Your task to perform on an android device: manage bookmarks in the chrome app Image 0: 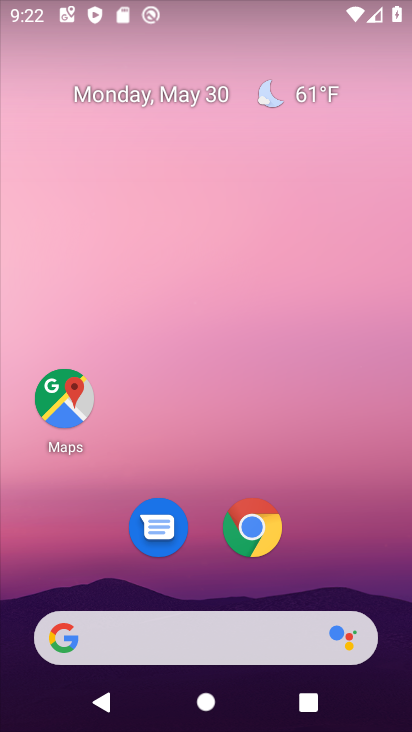
Step 0: click (248, 527)
Your task to perform on an android device: manage bookmarks in the chrome app Image 1: 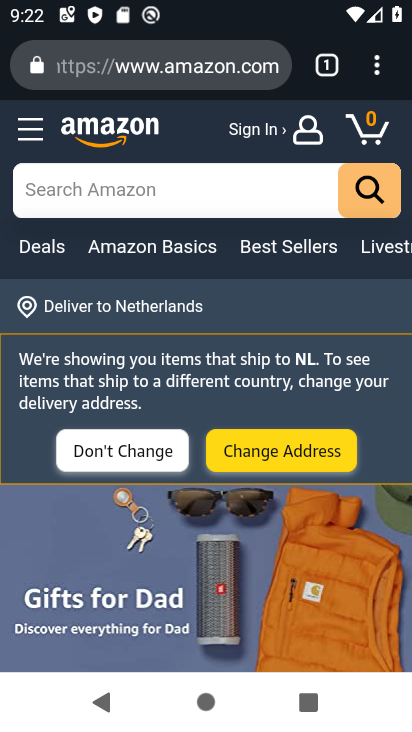
Step 1: click (367, 58)
Your task to perform on an android device: manage bookmarks in the chrome app Image 2: 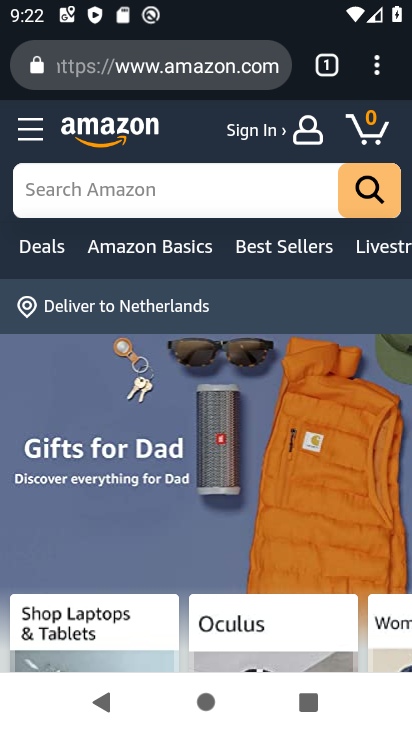
Step 2: click (392, 75)
Your task to perform on an android device: manage bookmarks in the chrome app Image 3: 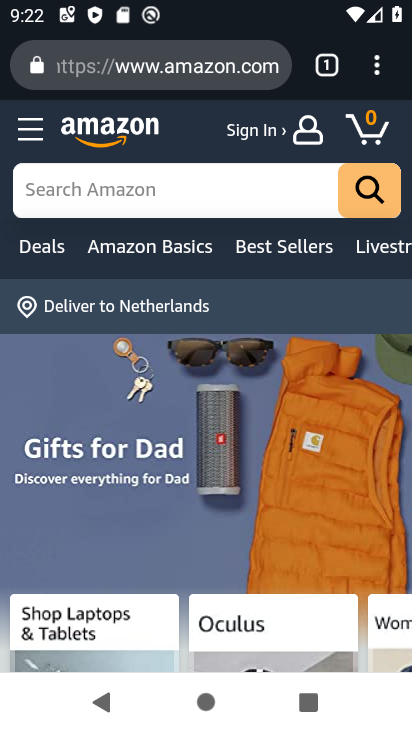
Step 3: click (383, 61)
Your task to perform on an android device: manage bookmarks in the chrome app Image 4: 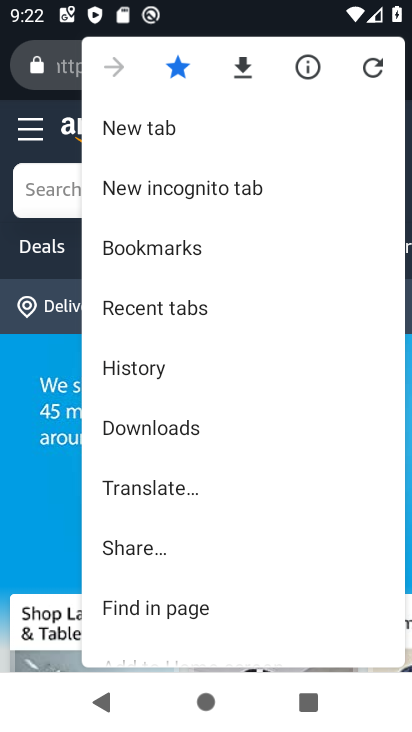
Step 4: click (148, 243)
Your task to perform on an android device: manage bookmarks in the chrome app Image 5: 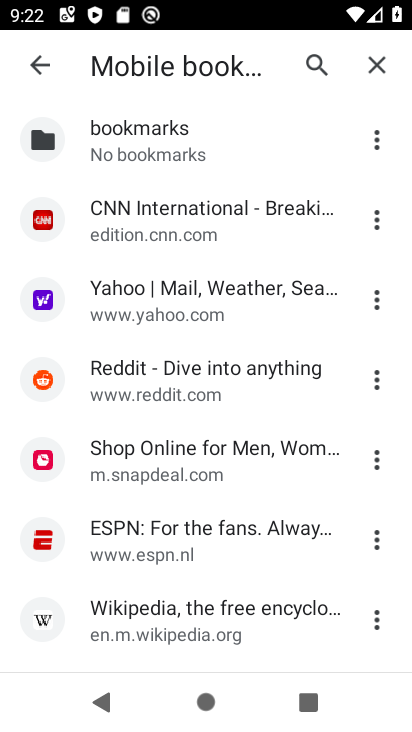
Step 5: click (376, 221)
Your task to perform on an android device: manage bookmarks in the chrome app Image 6: 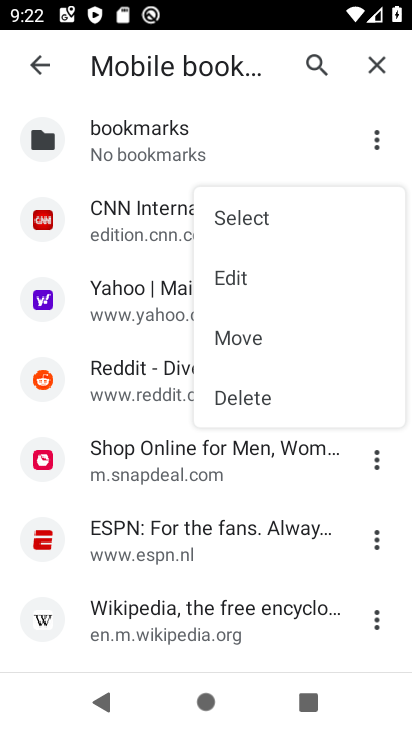
Step 6: click (299, 394)
Your task to perform on an android device: manage bookmarks in the chrome app Image 7: 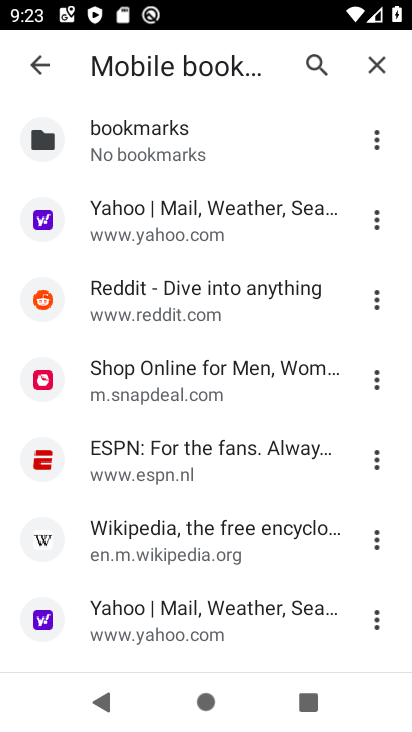
Step 7: task complete